Your task to perform on an android device: Do I have any events tomorrow? Image 0: 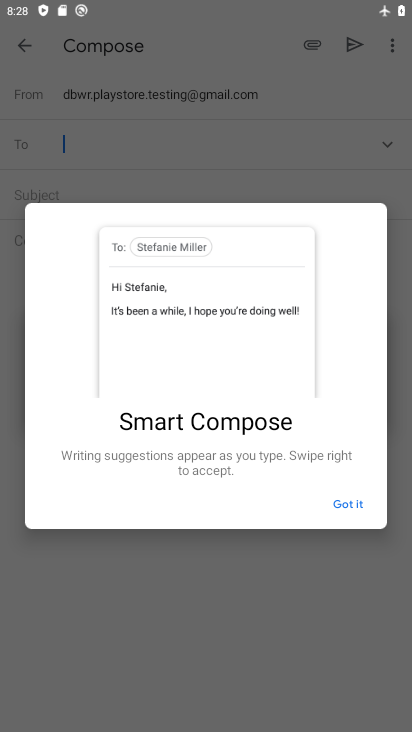
Step 0: press home button
Your task to perform on an android device: Do I have any events tomorrow? Image 1: 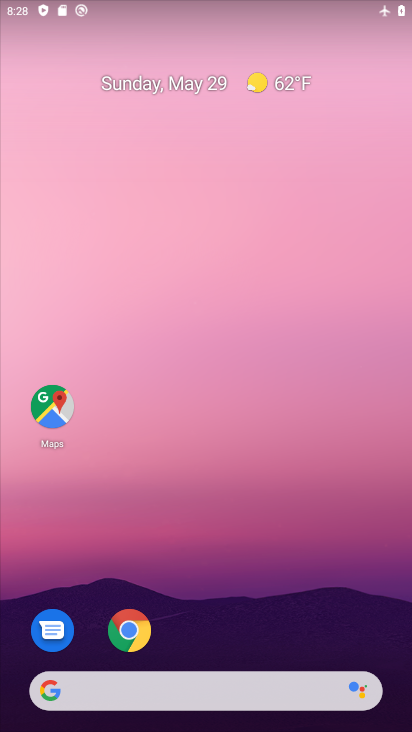
Step 1: drag from (390, 670) to (335, 87)
Your task to perform on an android device: Do I have any events tomorrow? Image 2: 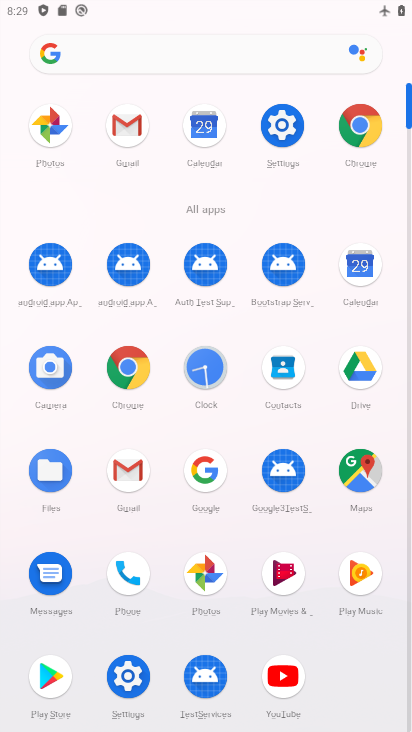
Step 2: click (355, 261)
Your task to perform on an android device: Do I have any events tomorrow? Image 3: 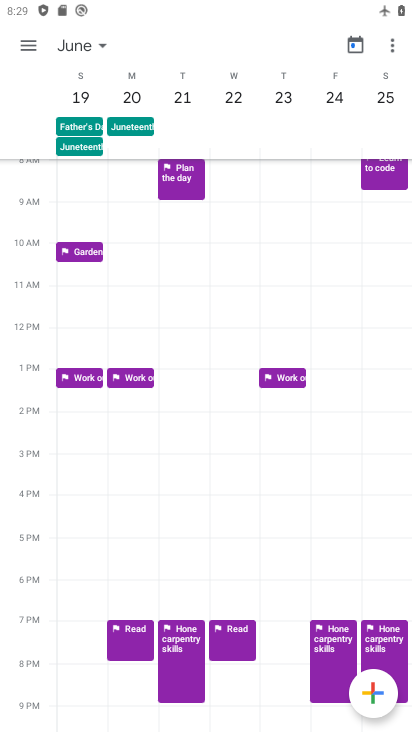
Step 3: click (92, 43)
Your task to perform on an android device: Do I have any events tomorrow? Image 4: 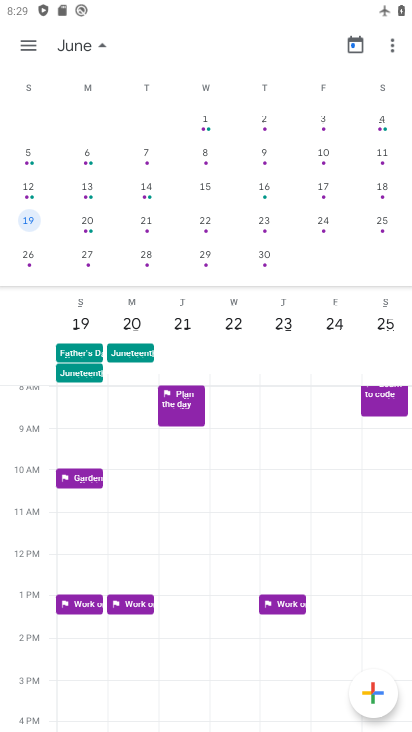
Step 4: drag from (49, 120) to (403, 120)
Your task to perform on an android device: Do I have any events tomorrow? Image 5: 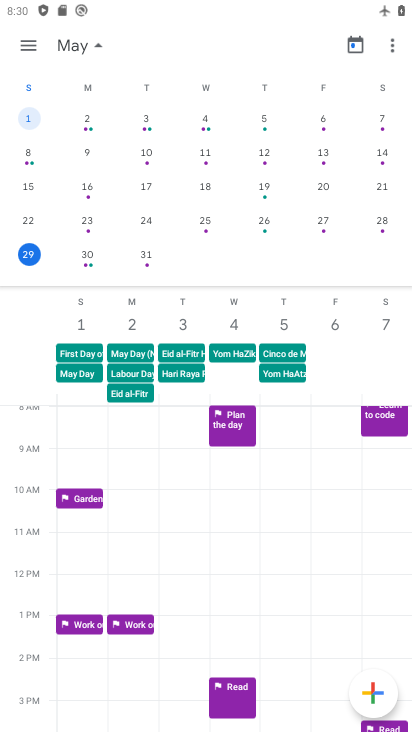
Step 5: click (34, 252)
Your task to perform on an android device: Do I have any events tomorrow? Image 6: 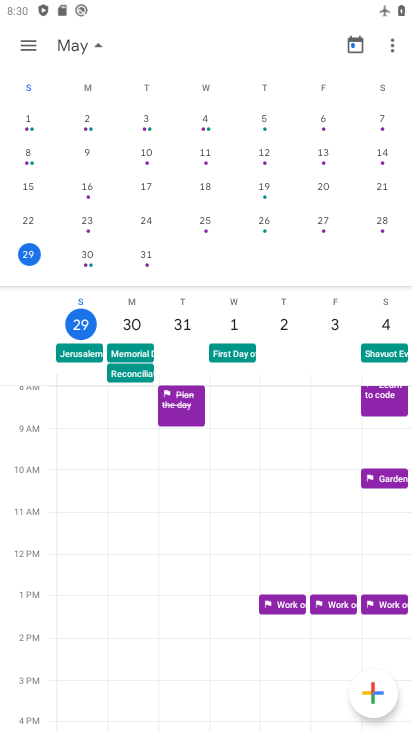
Step 6: click (29, 45)
Your task to perform on an android device: Do I have any events tomorrow? Image 7: 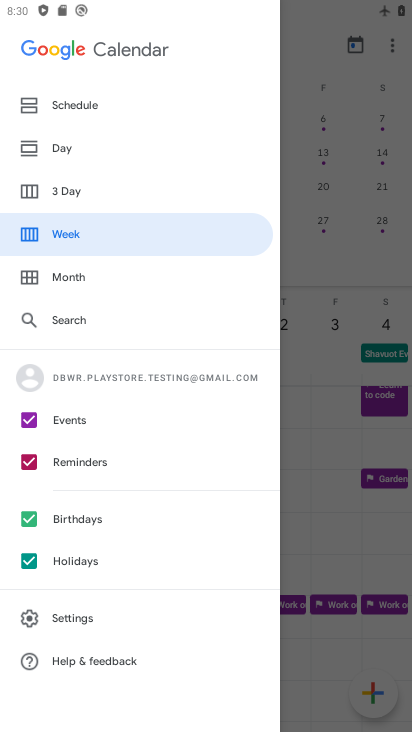
Step 7: click (75, 100)
Your task to perform on an android device: Do I have any events tomorrow? Image 8: 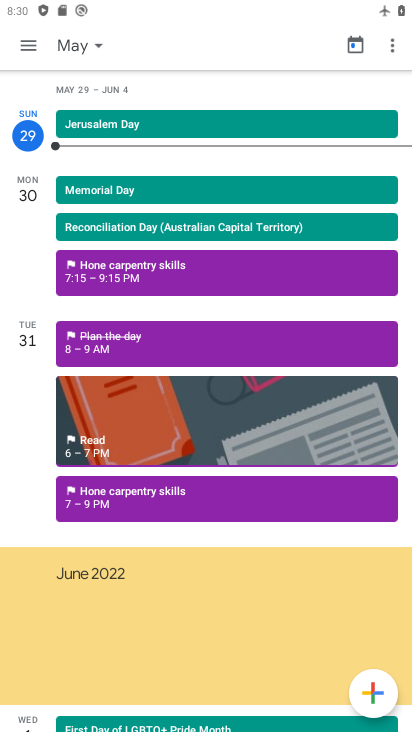
Step 8: click (33, 49)
Your task to perform on an android device: Do I have any events tomorrow? Image 9: 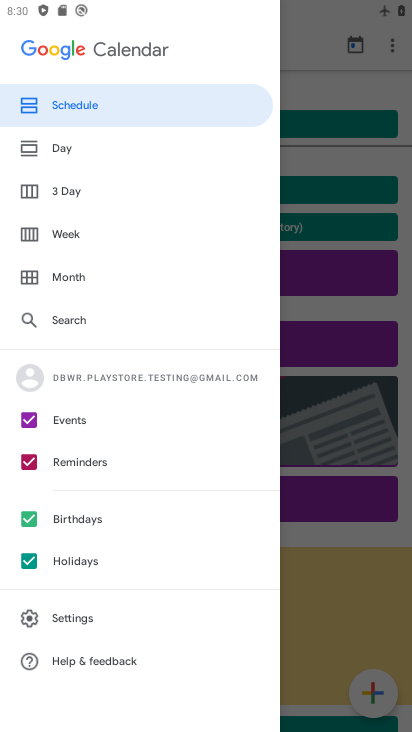
Step 9: click (52, 144)
Your task to perform on an android device: Do I have any events tomorrow? Image 10: 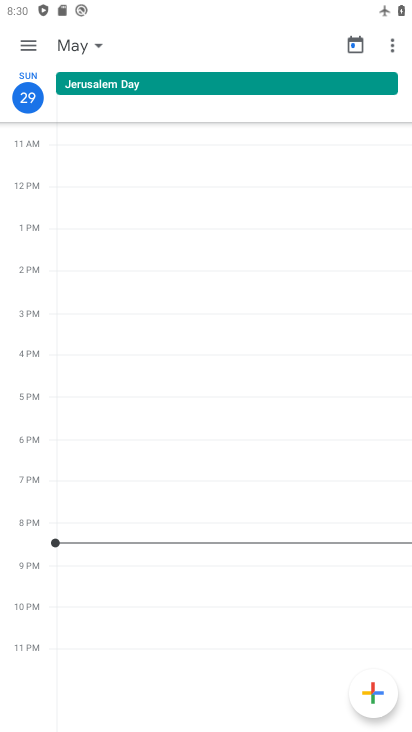
Step 10: task complete